Your task to perform on an android device: Toggle the flashlight Image 0: 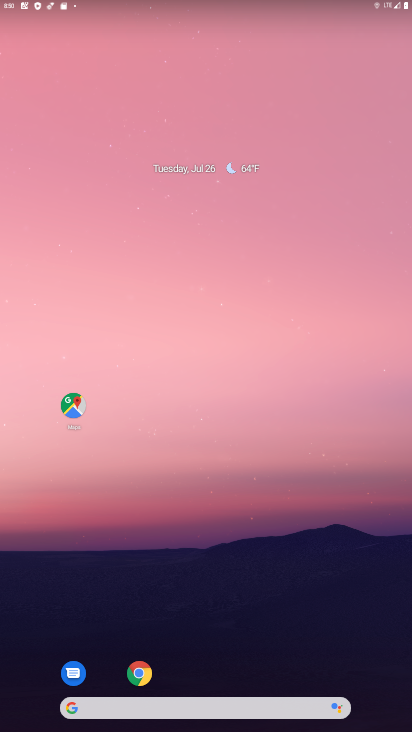
Step 0: drag from (169, 693) to (248, 50)
Your task to perform on an android device: Toggle the flashlight Image 1: 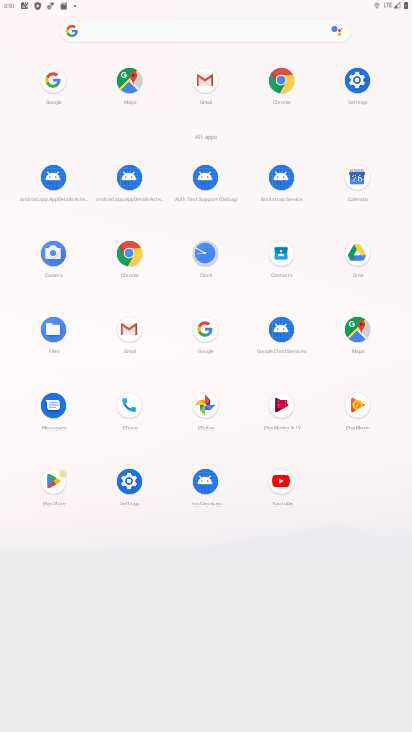
Step 1: task complete